Your task to perform on an android device: change notification settings in the gmail app Image 0: 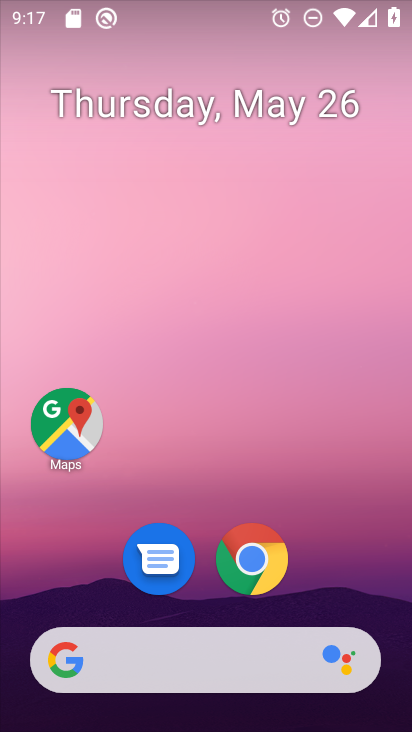
Step 0: drag from (317, 539) to (292, 74)
Your task to perform on an android device: change notification settings in the gmail app Image 1: 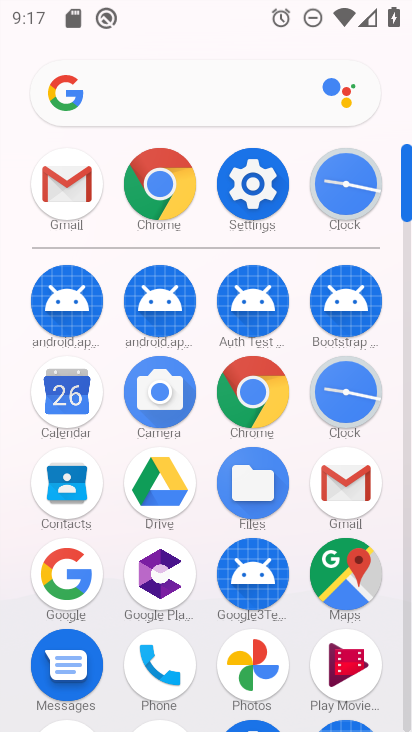
Step 1: click (61, 190)
Your task to perform on an android device: change notification settings in the gmail app Image 2: 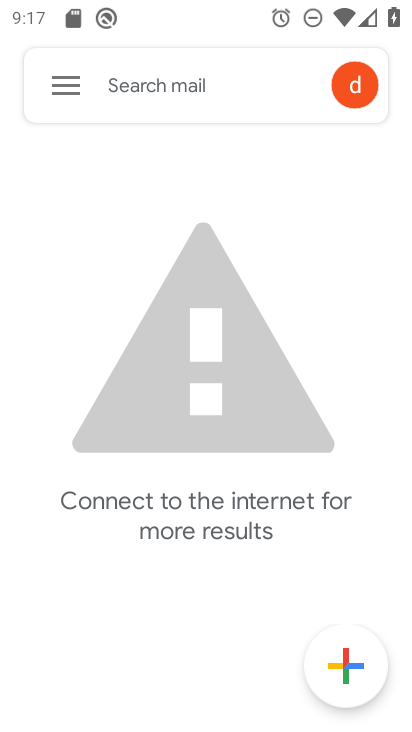
Step 2: click (72, 82)
Your task to perform on an android device: change notification settings in the gmail app Image 3: 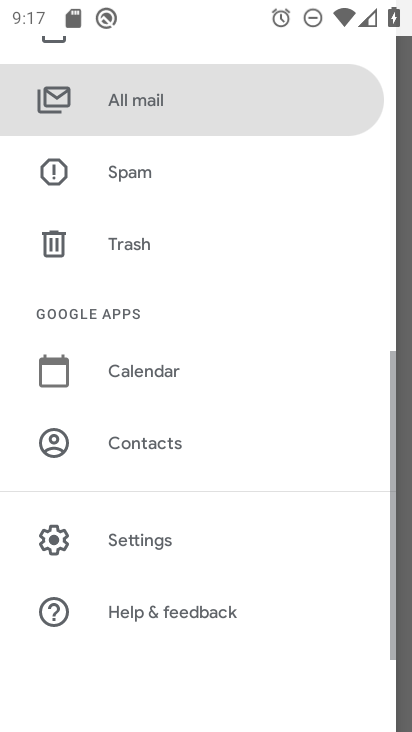
Step 3: click (146, 545)
Your task to perform on an android device: change notification settings in the gmail app Image 4: 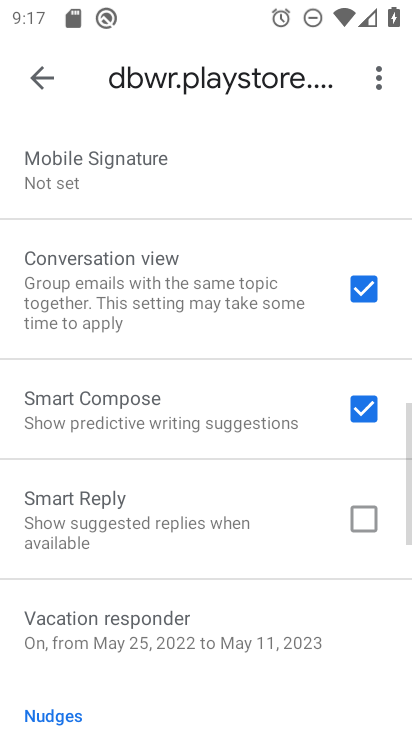
Step 4: drag from (174, 244) to (250, 586)
Your task to perform on an android device: change notification settings in the gmail app Image 5: 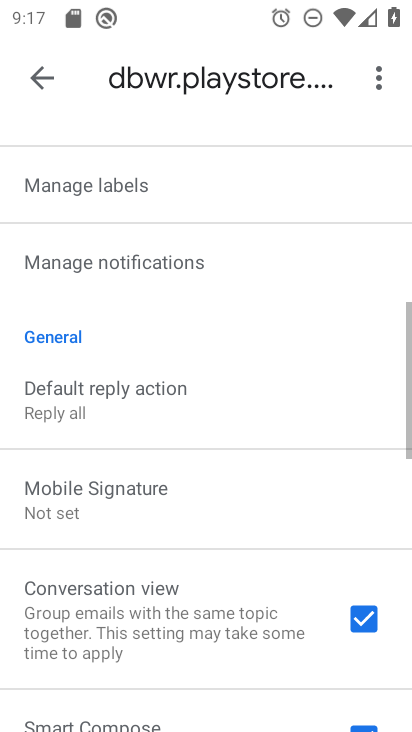
Step 5: drag from (141, 175) to (212, 594)
Your task to perform on an android device: change notification settings in the gmail app Image 6: 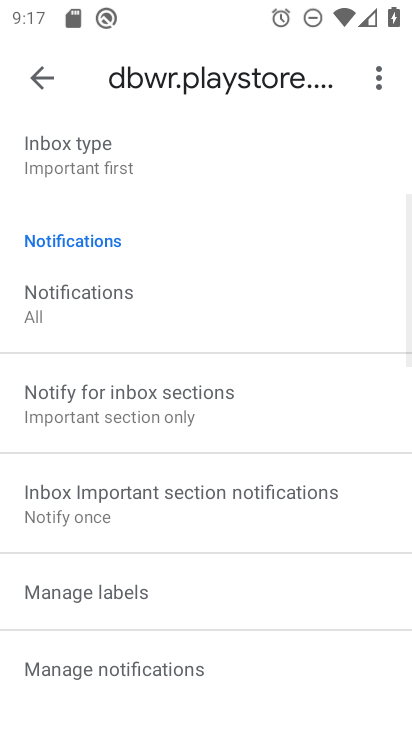
Step 6: click (110, 322)
Your task to perform on an android device: change notification settings in the gmail app Image 7: 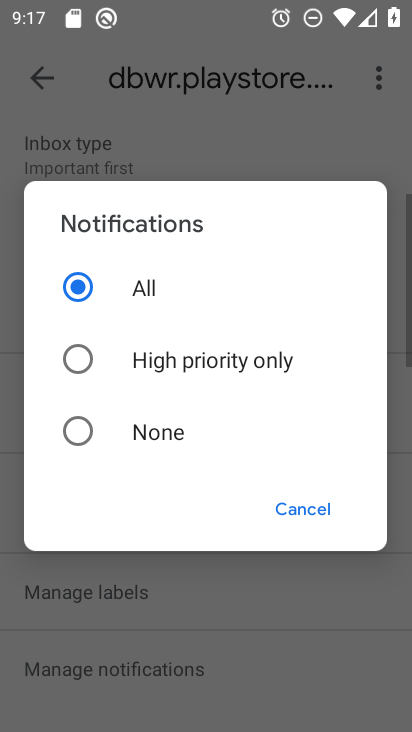
Step 7: click (93, 428)
Your task to perform on an android device: change notification settings in the gmail app Image 8: 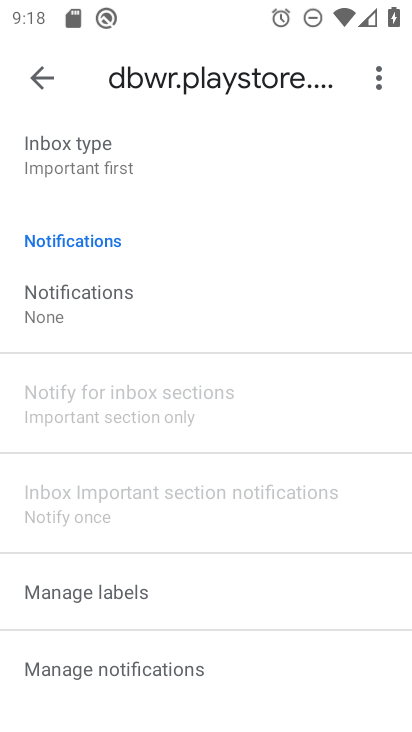
Step 8: task complete